Your task to perform on an android device: install app "Google Photos" Image 0: 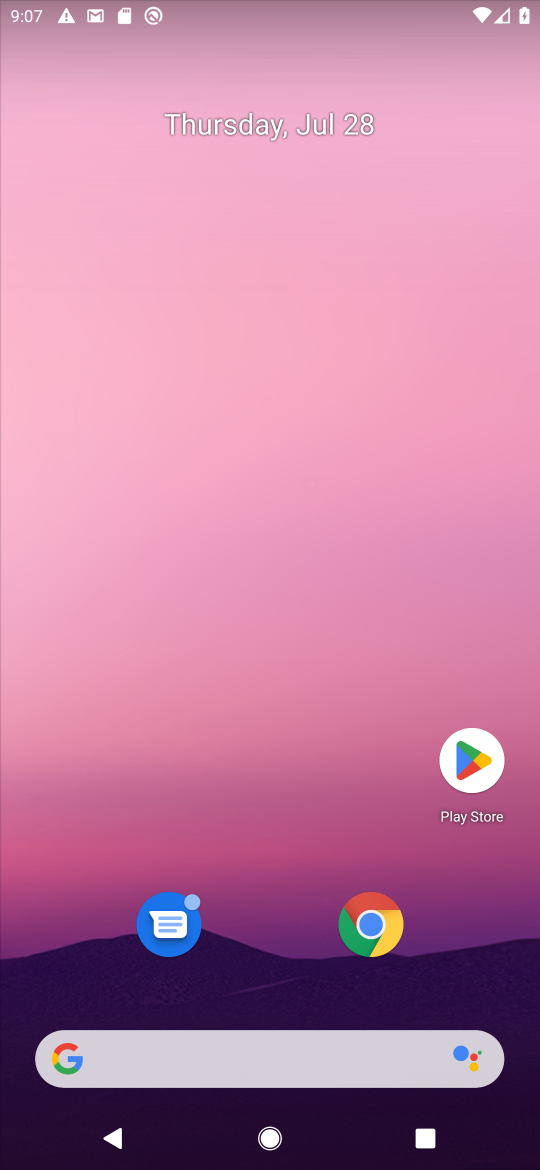
Step 0: press home button
Your task to perform on an android device: install app "Google Photos" Image 1: 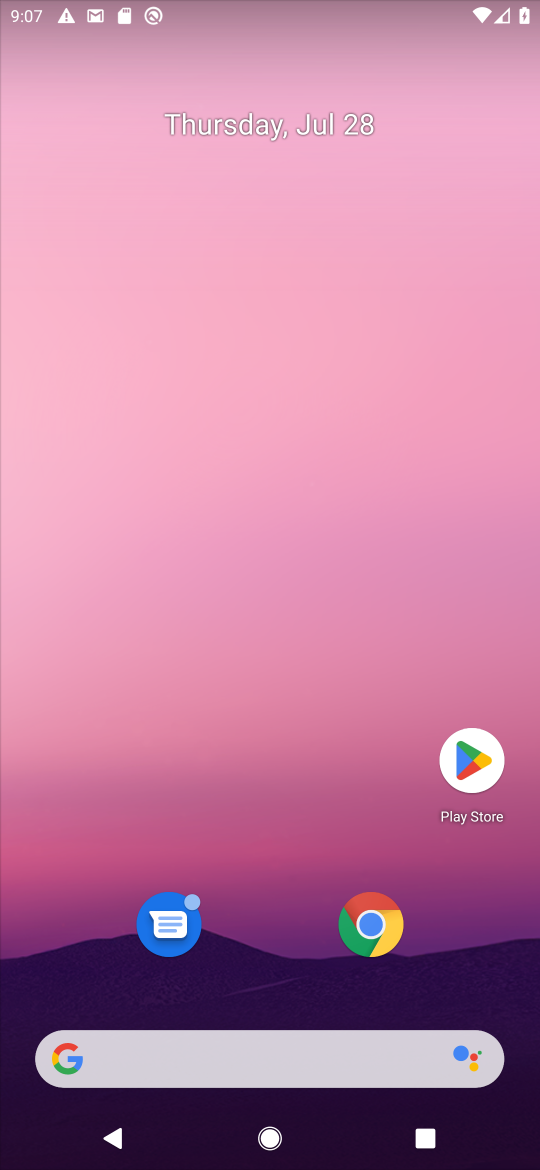
Step 1: click (465, 758)
Your task to perform on an android device: install app "Google Photos" Image 2: 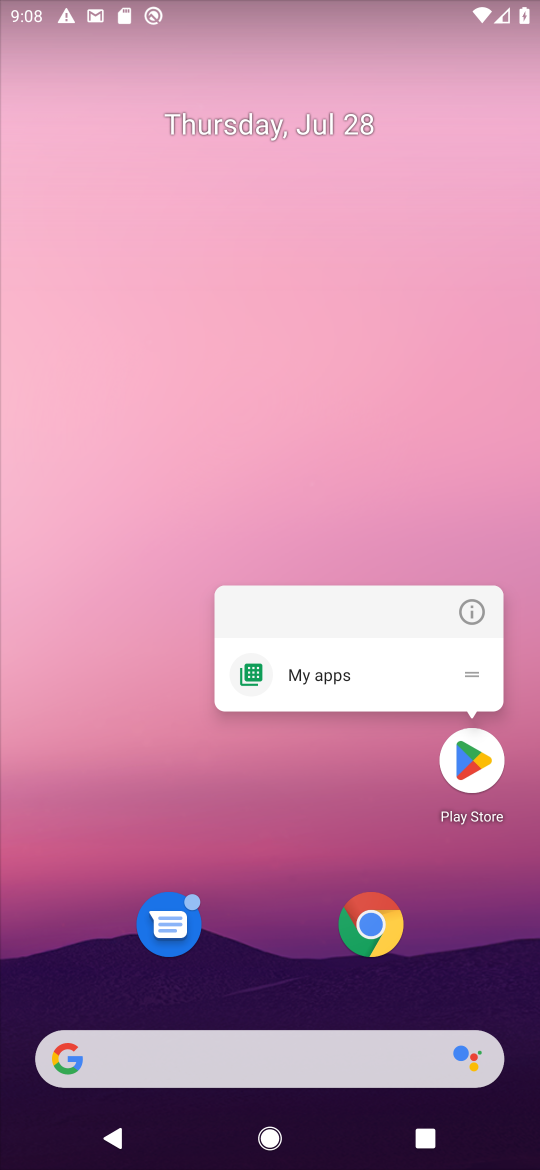
Step 2: click (463, 752)
Your task to perform on an android device: install app "Google Photos" Image 3: 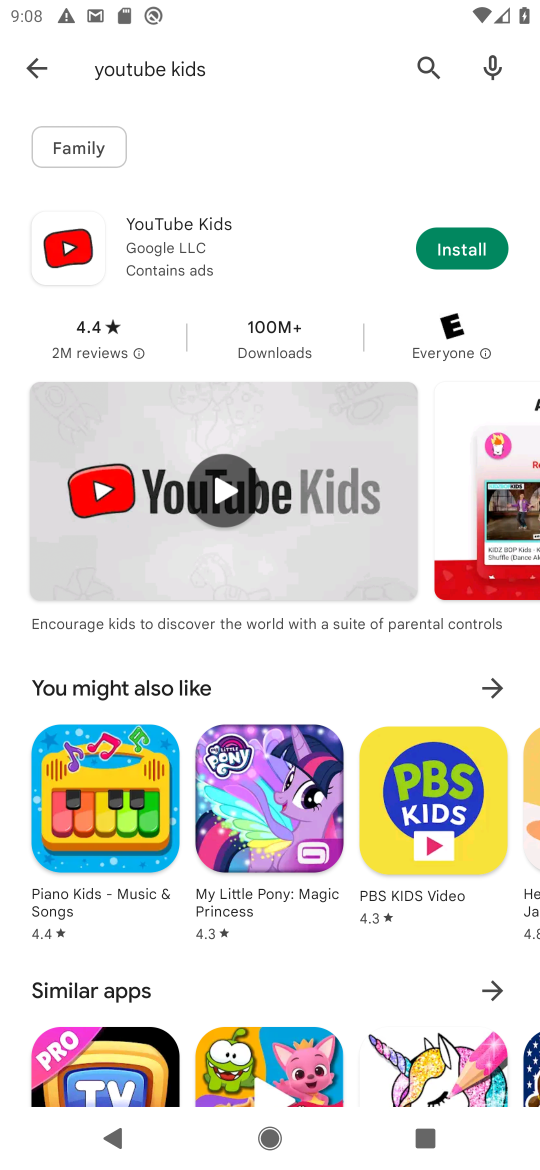
Step 3: click (428, 69)
Your task to perform on an android device: install app "Google Photos" Image 4: 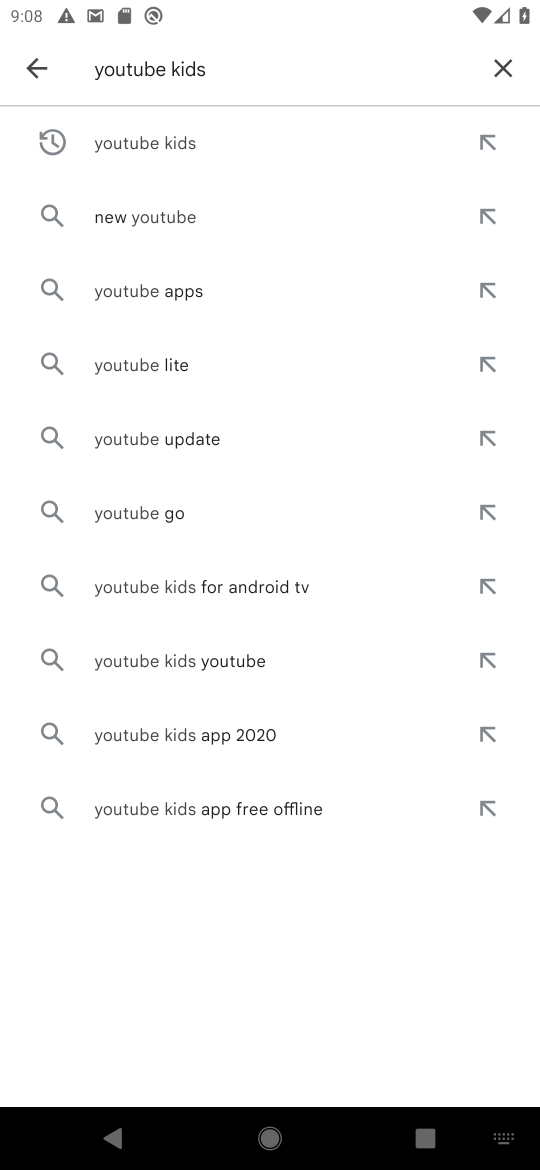
Step 4: click (502, 72)
Your task to perform on an android device: install app "Google Photos" Image 5: 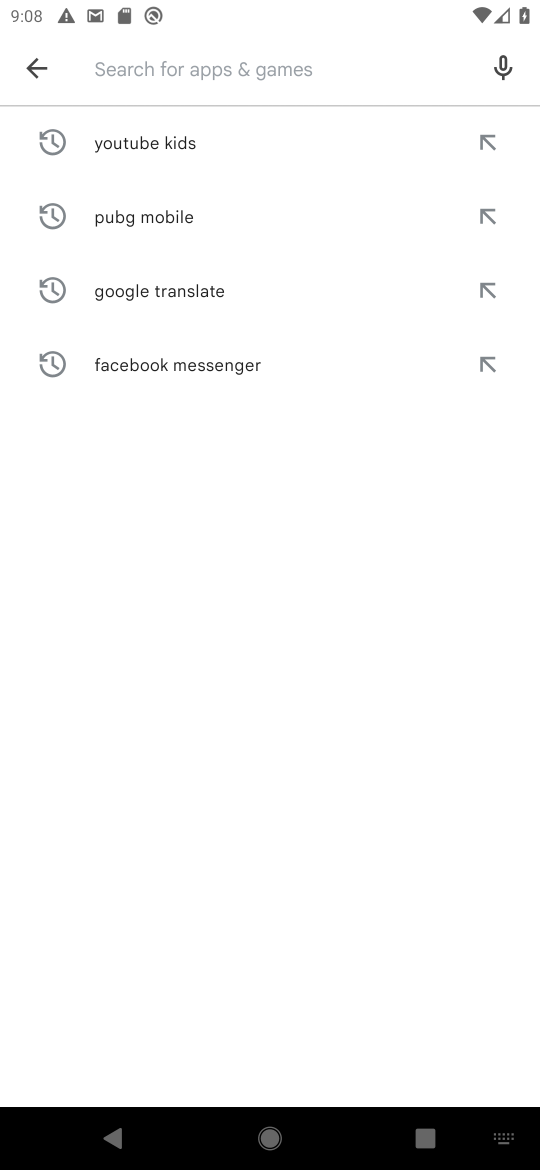
Step 5: type "Google Photos"
Your task to perform on an android device: install app "Google Photos" Image 6: 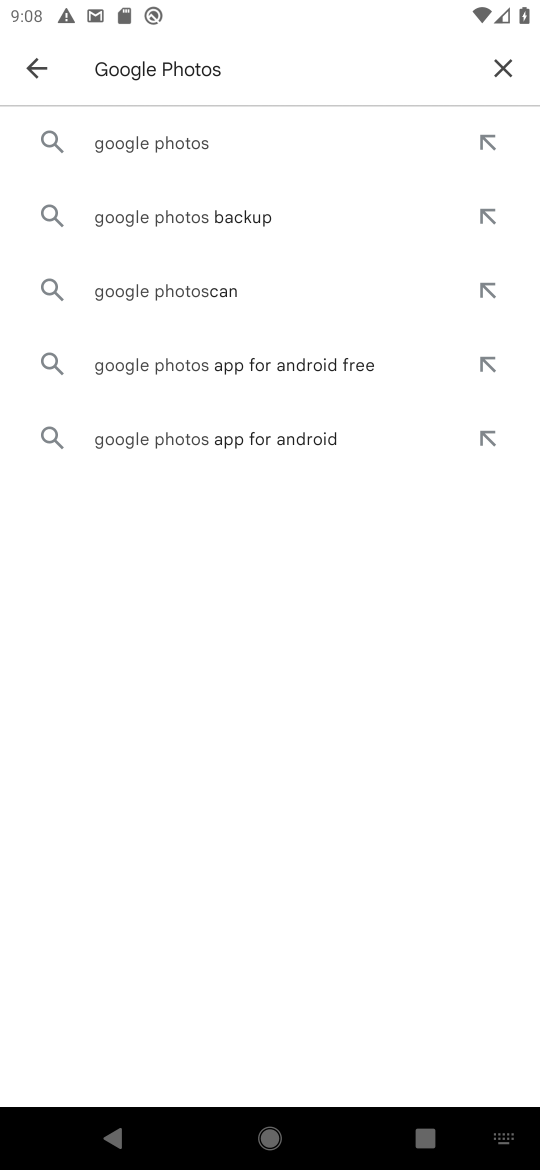
Step 6: click (123, 137)
Your task to perform on an android device: install app "Google Photos" Image 7: 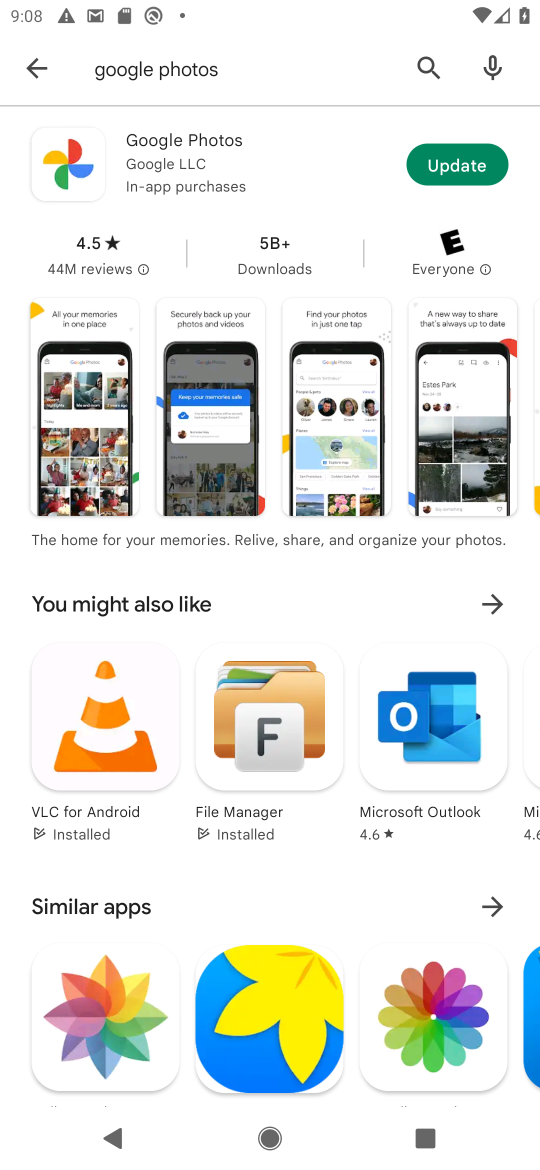
Step 7: task complete